Your task to perform on an android device: change alarm snooze length Image 0: 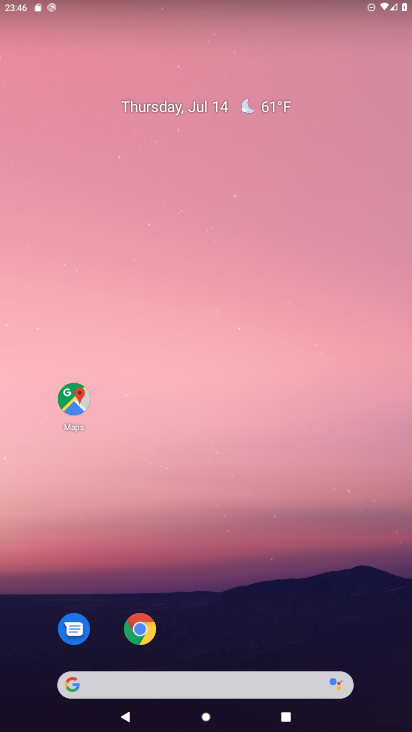
Step 0: drag from (227, 622) to (278, 157)
Your task to perform on an android device: change alarm snooze length Image 1: 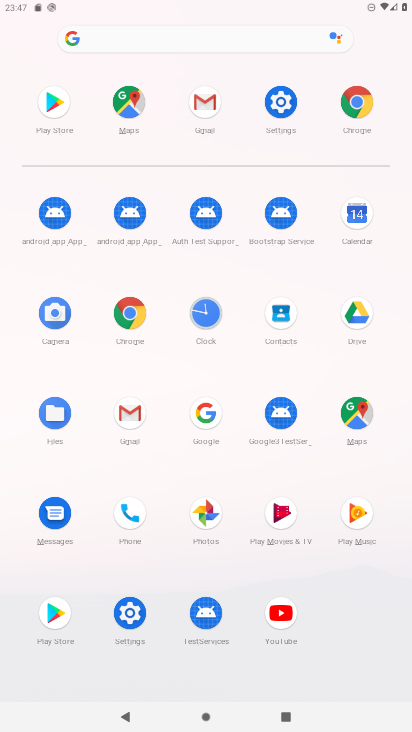
Step 1: click (211, 327)
Your task to perform on an android device: change alarm snooze length Image 2: 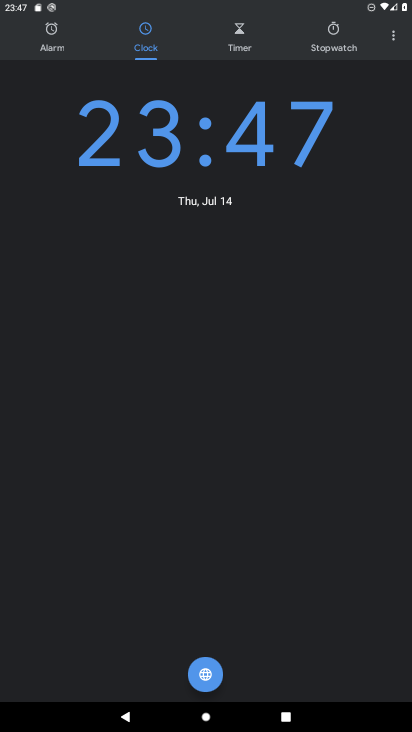
Step 2: click (403, 31)
Your task to perform on an android device: change alarm snooze length Image 3: 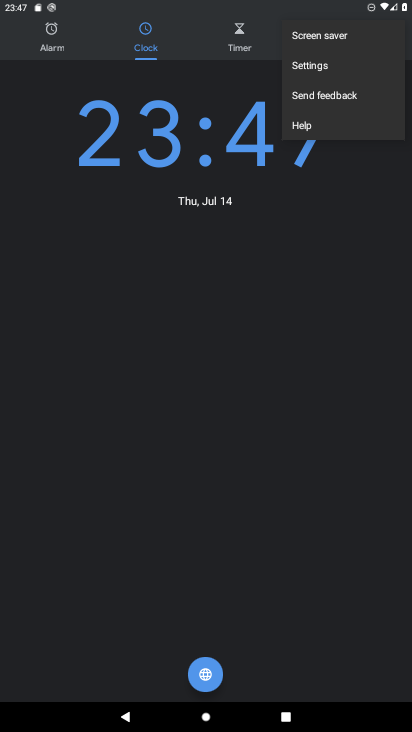
Step 3: click (334, 69)
Your task to perform on an android device: change alarm snooze length Image 4: 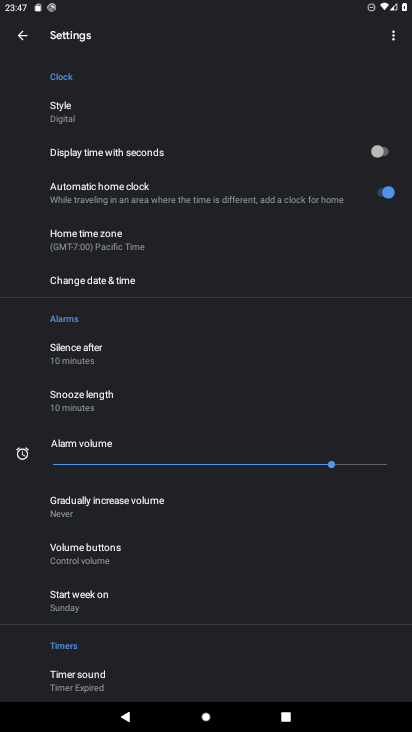
Step 4: click (119, 395)
Your task to perform on an android device: change alarm snooze length Image 5: 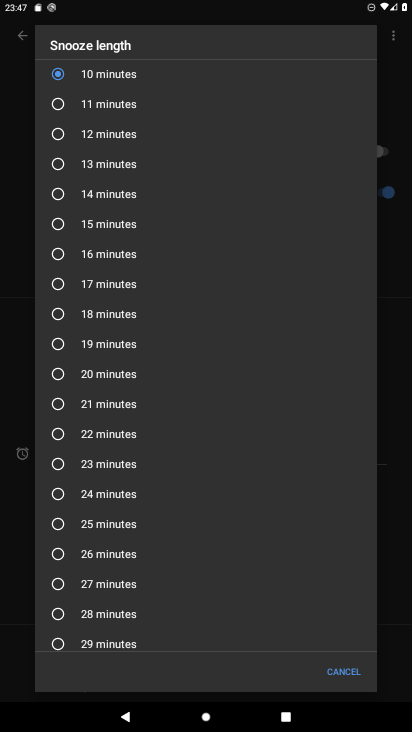
Step 5: click (184, 582)
Your task to perform on an android device: change alarm snooze length Image 6: 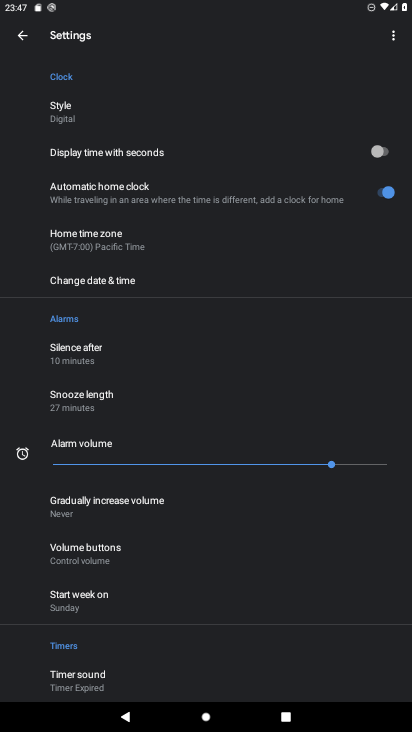
Step 6: task complete